Your task to perform on an android device: clear history in the chrome app Image 0: 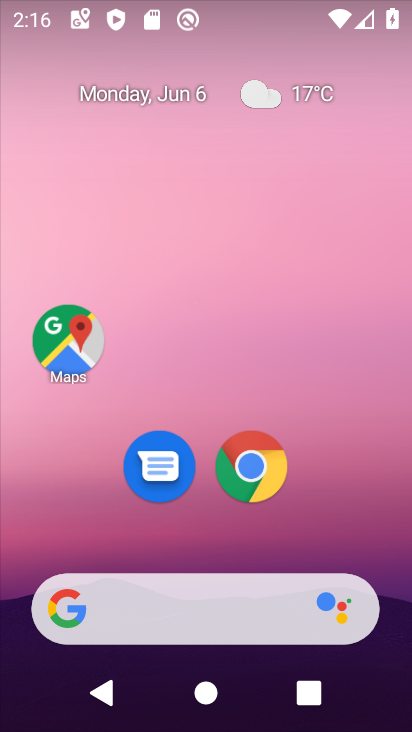
Step 0: drag from (211, 545) to (189, 2)
Your task to perform on an android device: clear history in the chrome app Image 1: 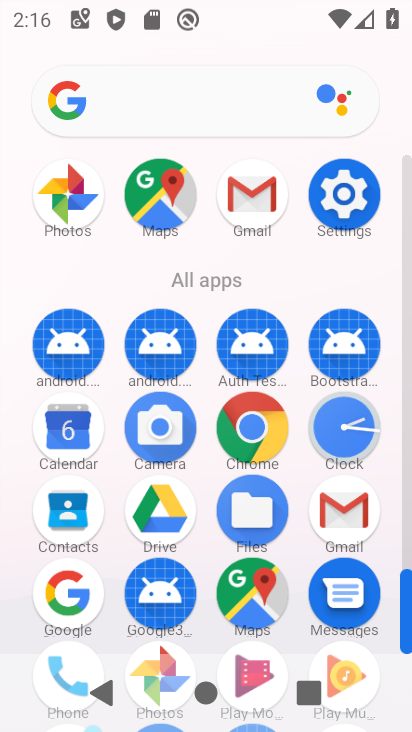
Step 1: click (241, 443)
Your task to perform on an android device: clear history in the chrome app Image 2: 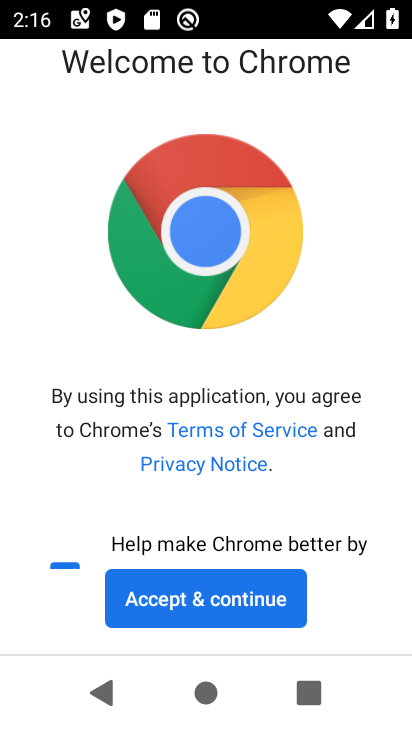
Step 2: click (189, 602)
Your task to perform on an android device: clear history in the chrome app Image 3: 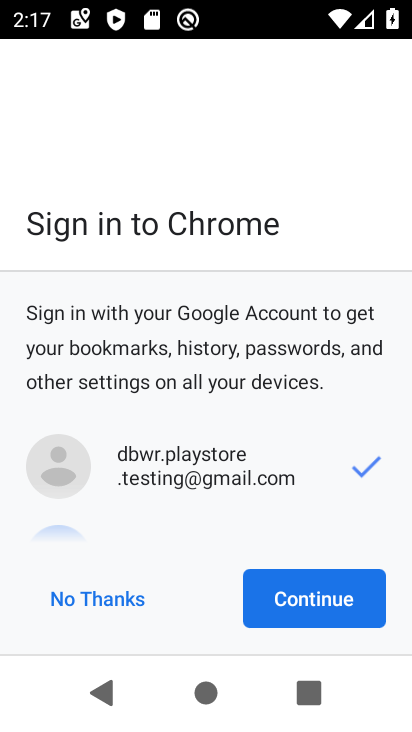
Step 3: click (330, 593)
Your task to perform on an android device: clear history in the chrome app Image 4: 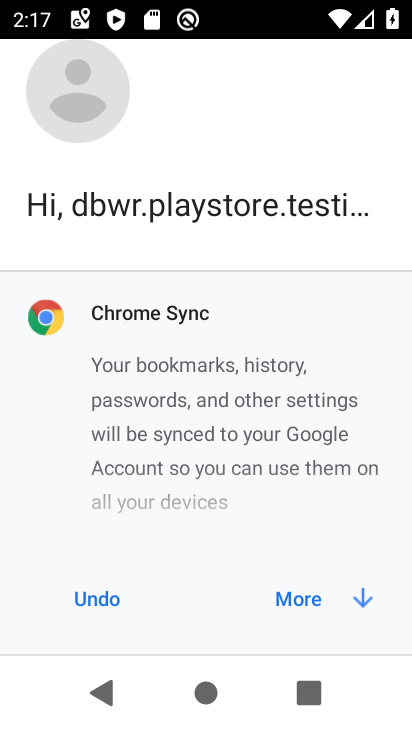
Step 4: click (306, 605)
Your task to perform on an android device: clear history in the chrome app Image 5: 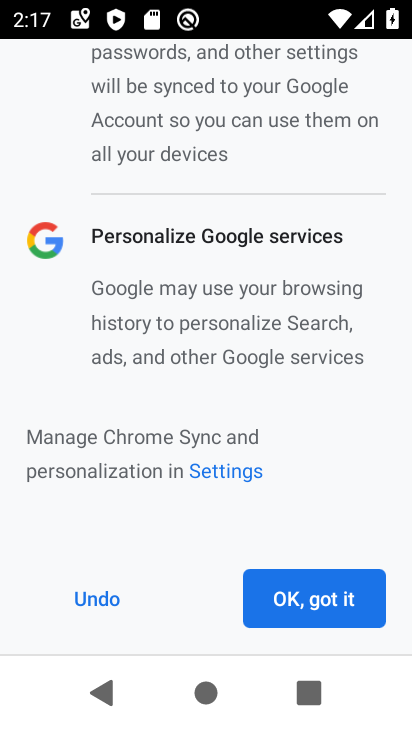
Step 5: click (306, 605)
Your task to perform on an android device: clear history in the chrome app Image 6: 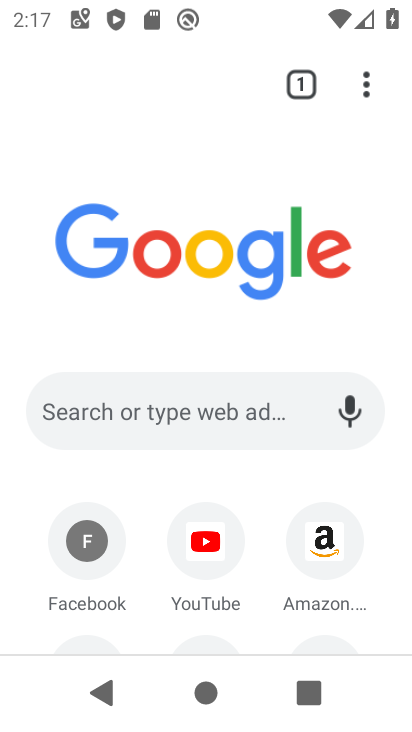
Step 6: click (363, 87)
Your task to perform on an android device: clear history in the chrome app Image 7: 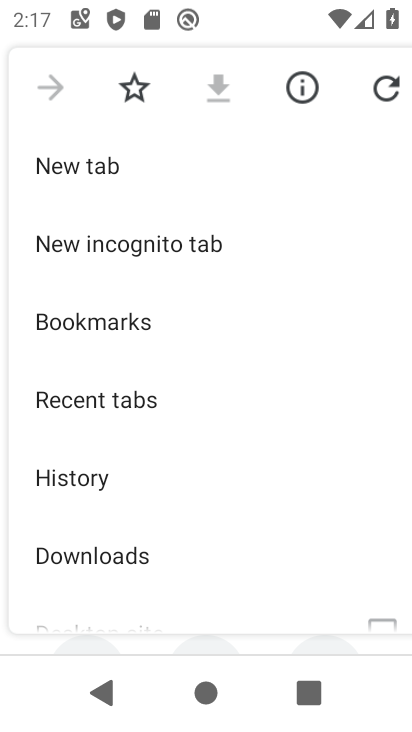
Step 7: click (79, 484)
Your task to perform on an android device: clear history in the chrome app Image 8: 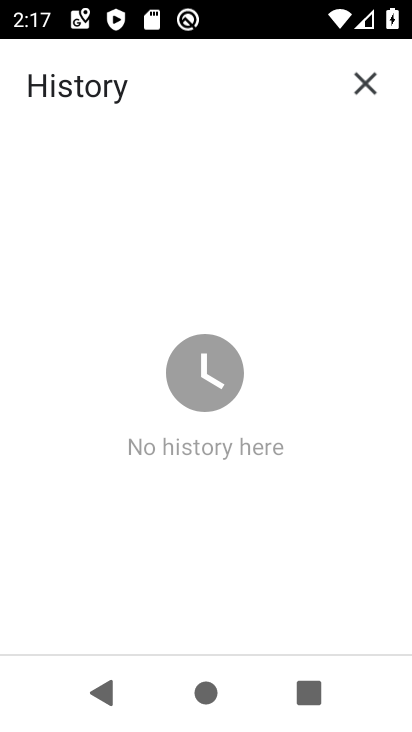
Step 8: task complete